Your task to perform on an android device: When is my next meeting? Image 0: 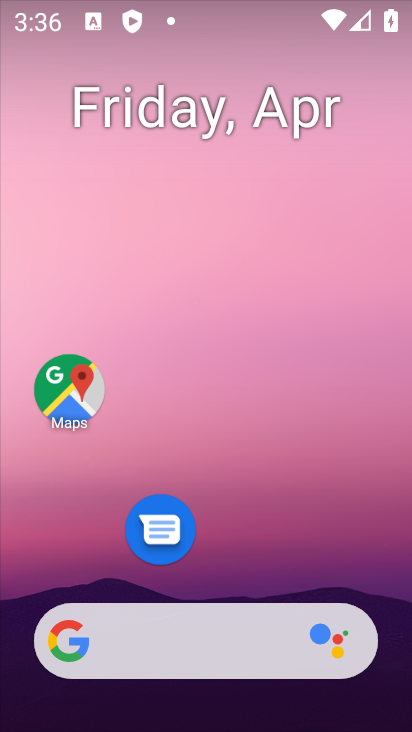
Step 0: drag from (345, 554) to (318, 269)
Your task to perform on an android device: When is my next meeting? Image 1: 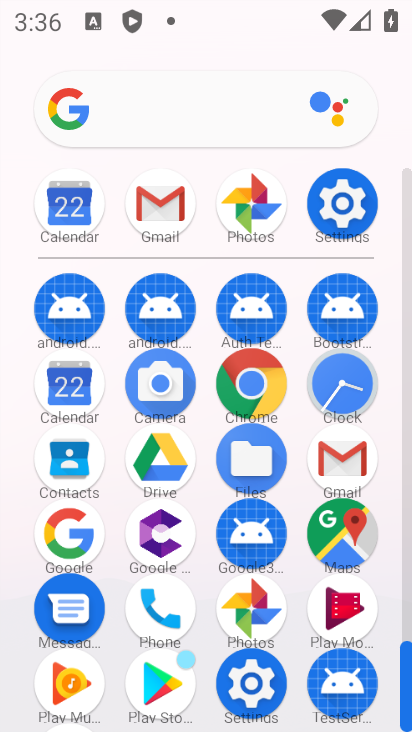
Step 1: click (75, 406)
Your task to perform on an android device: When is my next meeting? Image 2: 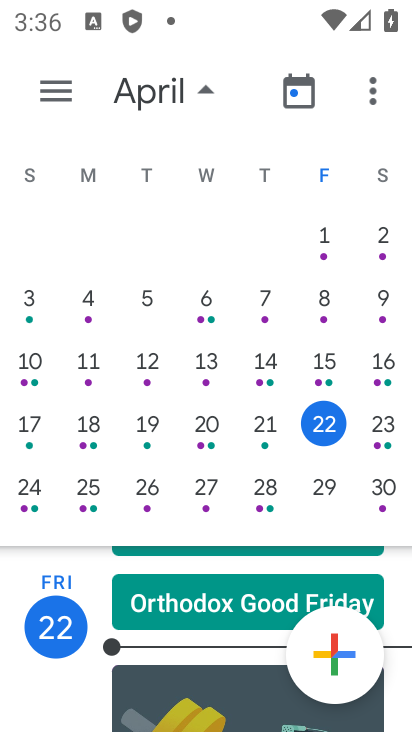
Step 2: task complete